Your task to perform on an android device: turn off javascript in the chrome app Image 0: 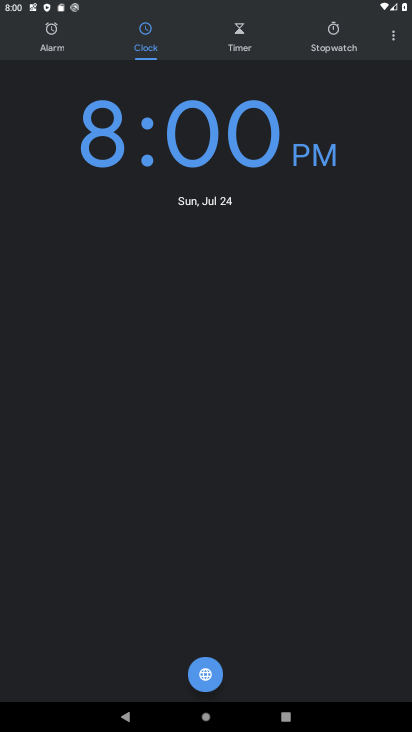
Step 0: press home button
Your task to perform on an android device: turn off javascript in the chrome app Image 1: 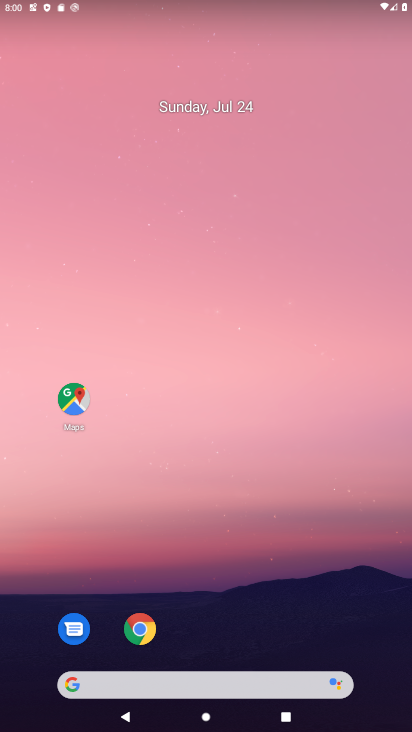
Step 1: drag from (178, 678) to (219, 106)
Your task to perform on an android device: turn off javascript in the chrome app Image 2: 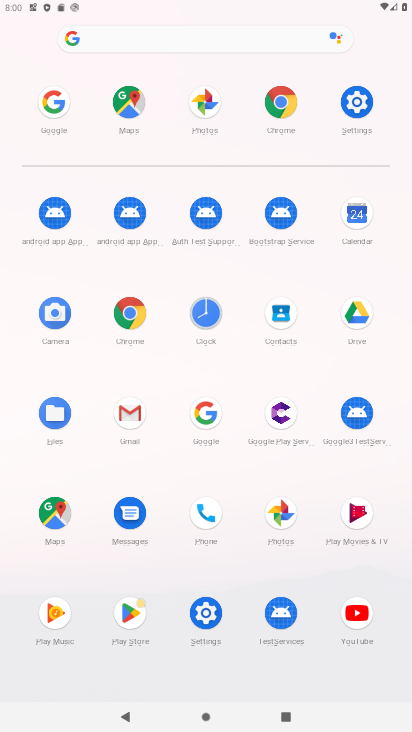
Step 2: click (287, 119)
Your task to perform on an android device: turn off javascript in the chrome app Image 3: 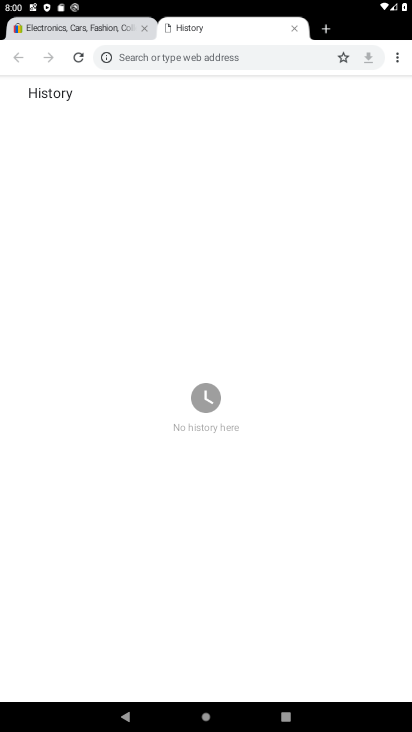
Step 3: click (401, 58)
Your task to perform on an android device: turn off javascript in the chrome app Image 4: 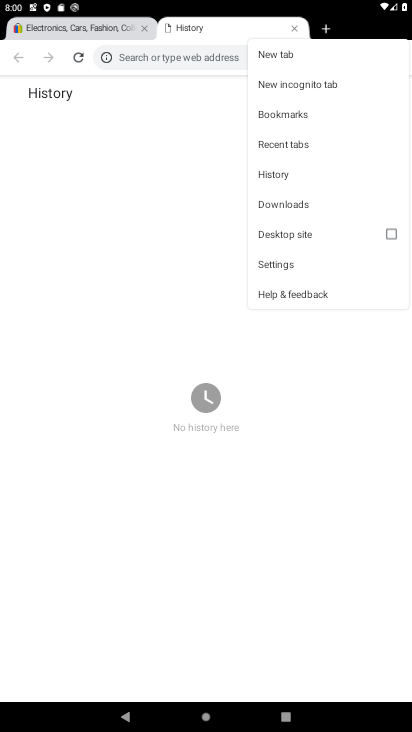
Step 4: click (266, 272)
Your task to perform on an android device: turn off javascript in the chrome app Image 5: 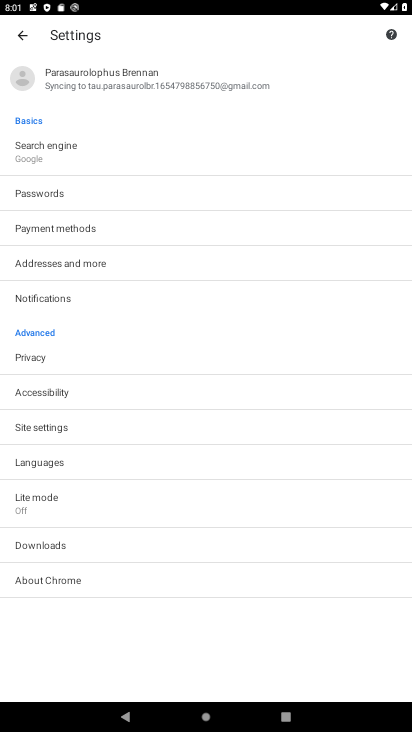
Step 5: click (47, 435)
Your task to perform on an android device: turn off javascript in the chrome app Image 6: 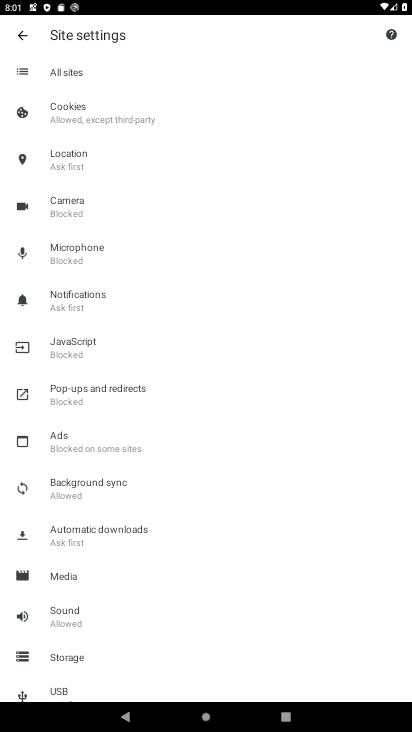
Step 6: click (96, 351)
Your task to perform on an android device: turn off javascript in the chrome app Image 7: 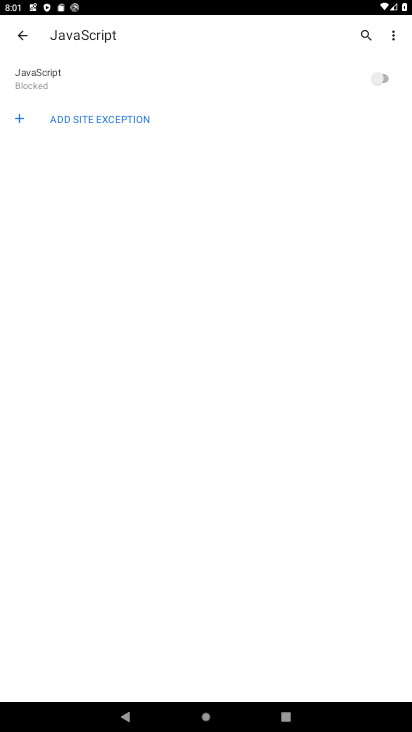
Step 7: task complete